Your task to perform on an android device: Open Chrome and go to settings Image 0: 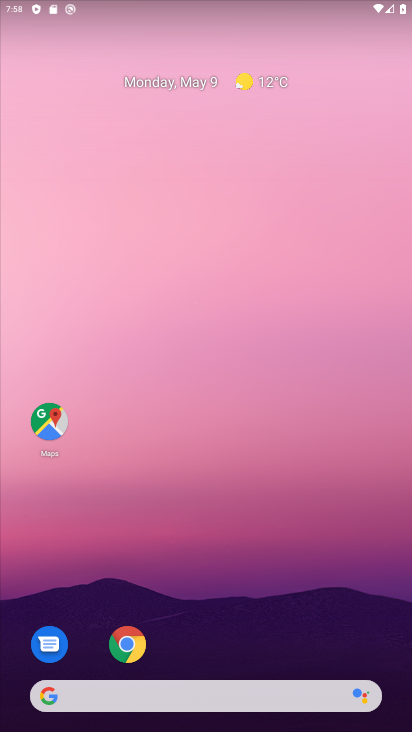
Step 0: click (129, 654)
Your task to perform on an android device: Open Chrome and go to settings Image 1: 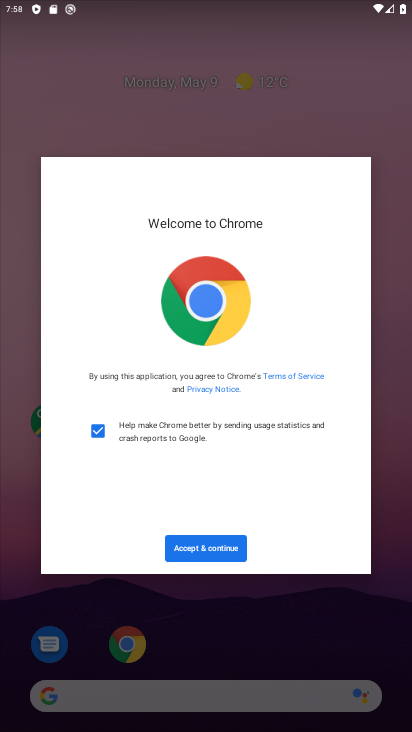
Step 1: click (191, 547)
Your task to perform on an android device: Open Chrome and go to settings Image 2: 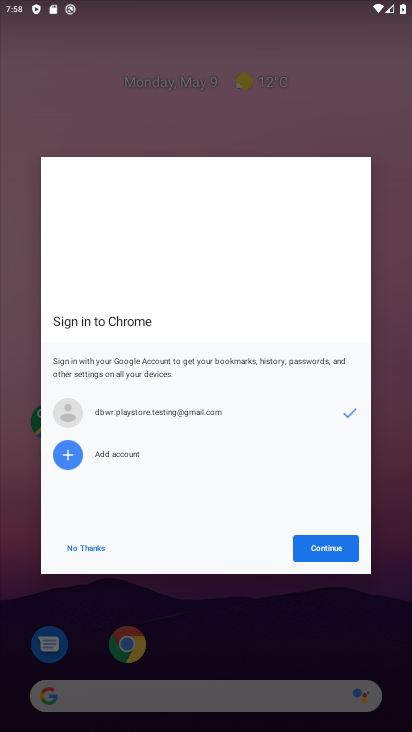
Step 2: click (346, 549)
Your task to perform on an android device: Open Chrome and go to settings Image 3: 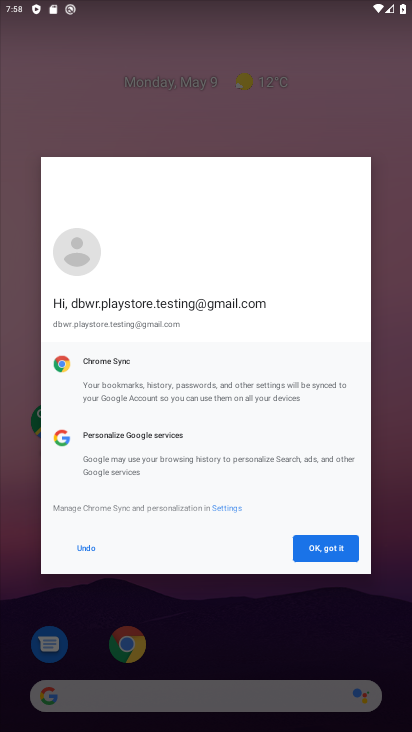
Step 3: click (341, 547)
Your task to perform on an android device: Open Chrome and go to settings Image 4: 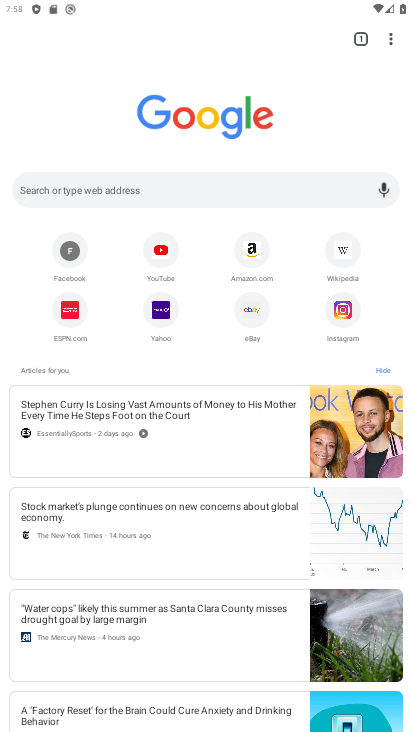
Step 4: click (392, 42)
Your task to perform on an android device: Open Chrome and go to settings Image 5: 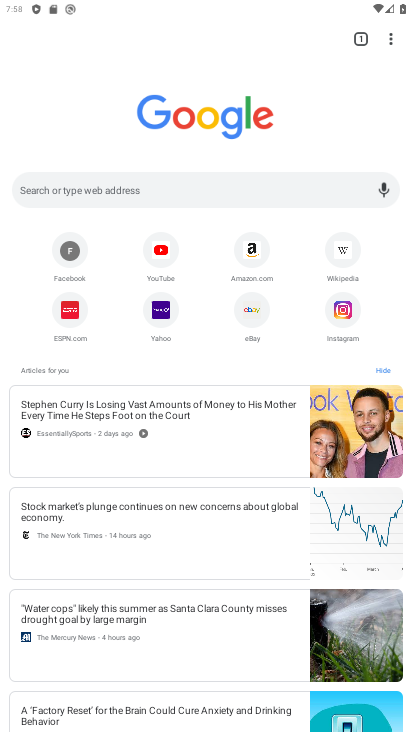
Step 5: click (386, 29)
Your task to perform on an android device: Open Chrome and go to settings Image 6: 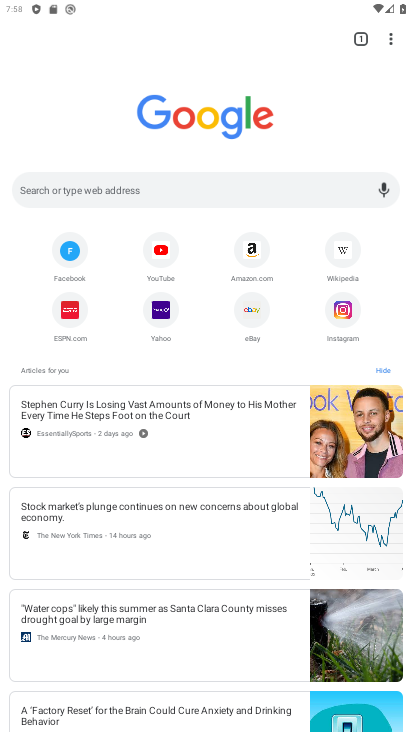
Step 6: click (395, 43)
Your task to perform on an android device: Open Chrome and go to settings Image 7: 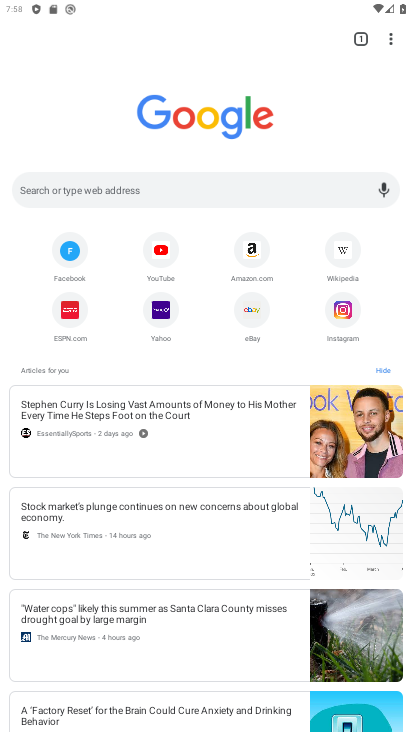
Step 7: click (393, 34)
Your task to perform on an android device: Open Chrome and go to settings Image 8: 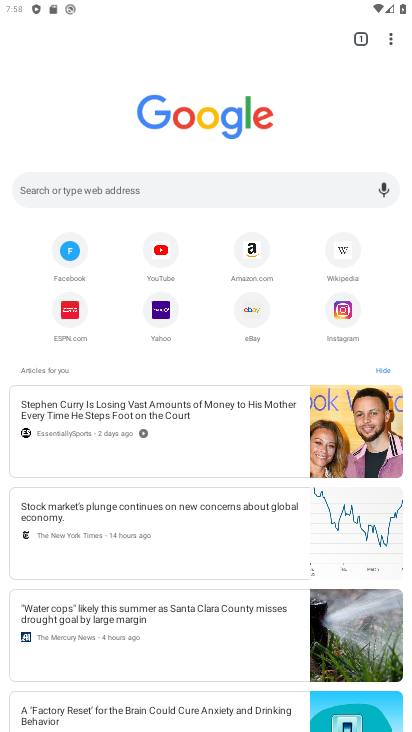
Step 8: click (391, 42)
Your task to perform on an android device: Open Chrome and go to settings Image 9: 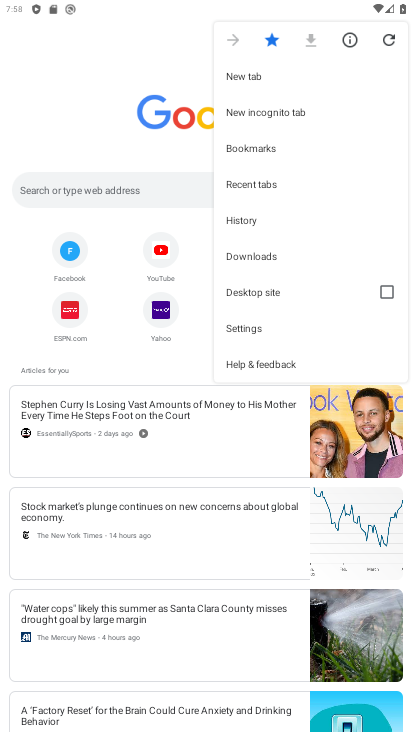
Step 9: click (253, 327)
Your task to perform on an android device: Open Chrome and go to settings Image 10: 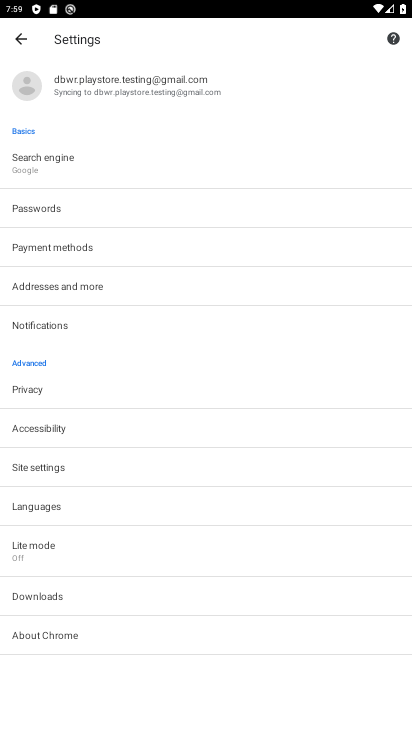
Step 10: task complete